Your task to perform on an android device: find snoozed emails in the gmail app Image 0: 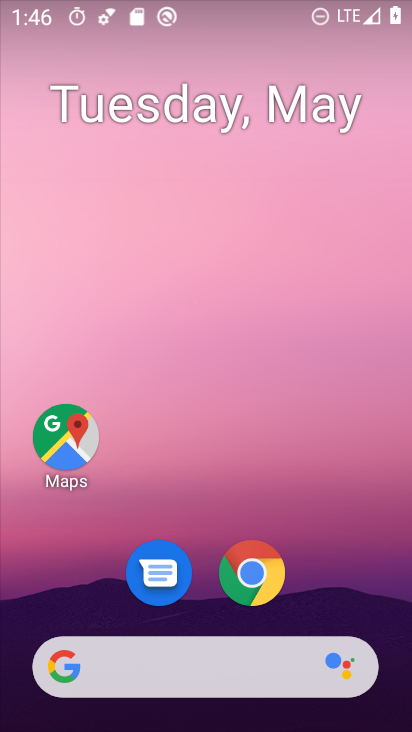
Step 0: drag from (330, 538) to (364, 96)
Your task to perform on an android device: find snoozed emails in the gmail app Image 1: 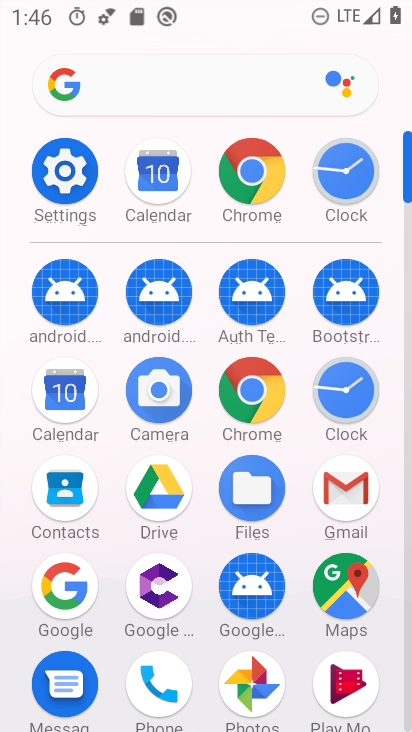
Step 1: click (340, 489)
Your task to perform on an android device: find snoozed emails in the gmail app Image 2: 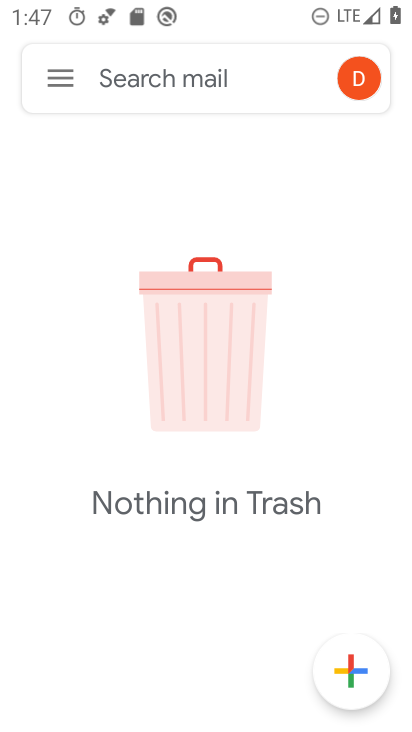
Step 2: click (63, 82)
Your task to perform on an android device: find snoozed emails in the gmail app Image 3: 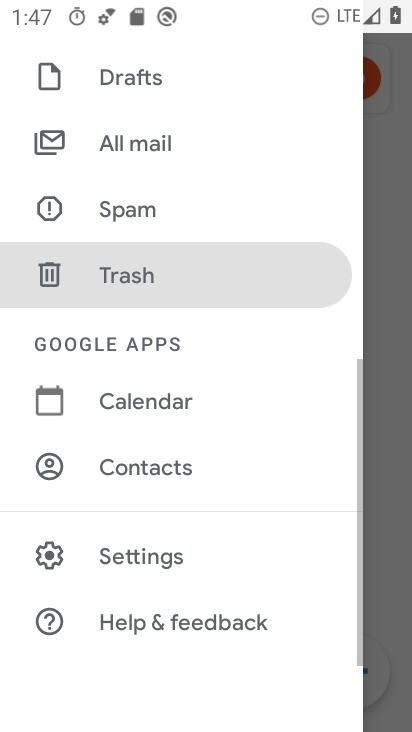
Step 3: drag from (151, 220) to (143, 536)
Your task to perform on an android device: find snoozed emails in the gmail app Image 4: 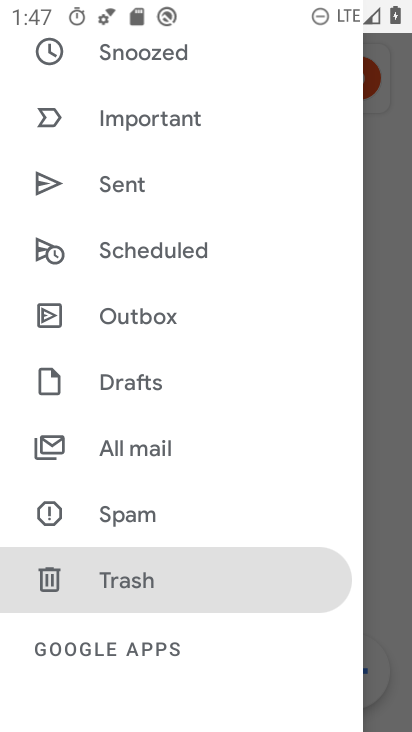
Step 4: drag from (144, 184) to (145, 544)
Your task to perform on an android device: find snoozed emails in the gmail app Image 5: 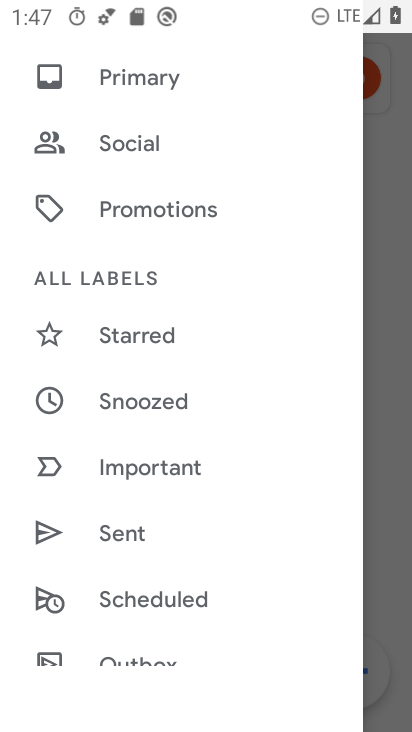
Step 5: click (150, 408)
Your task to perform on an android device: find snoozed emails in the gmail app Image 6: 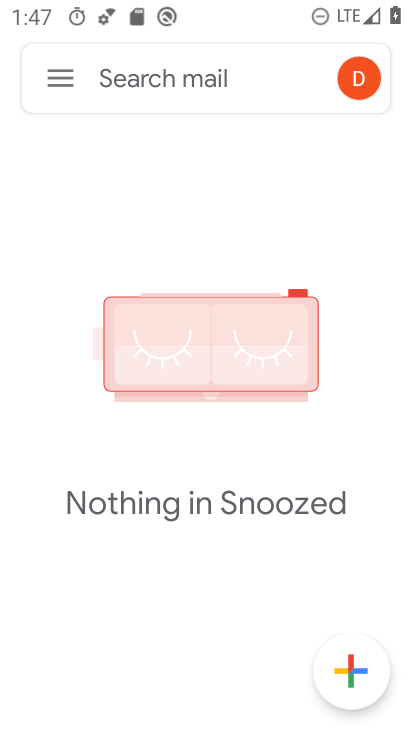
Step 6: task complete